Your task to perform on an android device: Open the calendar app, open the side menu, and click the "Day" option Image 0: 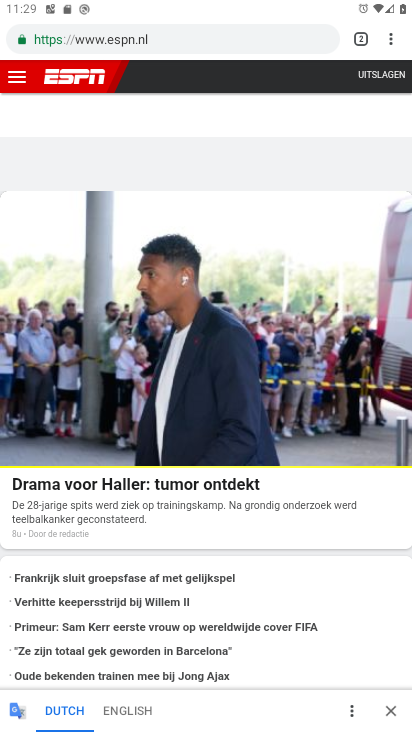
Step 0: task complete